Your task to perform on an android device: Open calendar and show me the second week of next month Image 0: 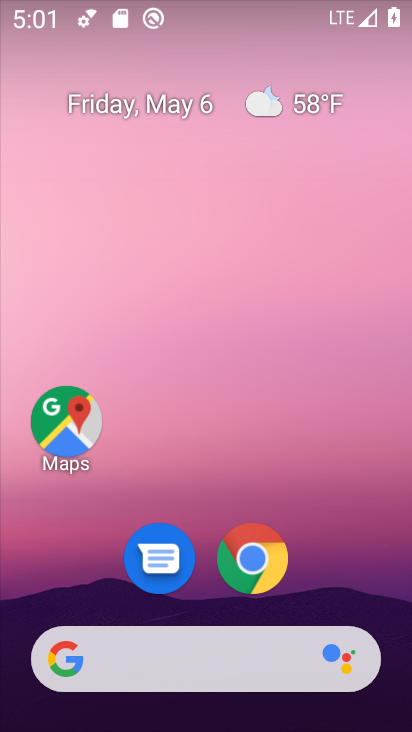
Step 0: drag from (329, 622) to (314, 35)
Your task to perform on an android device: Open calendar and show me the second week of next month Image 1: 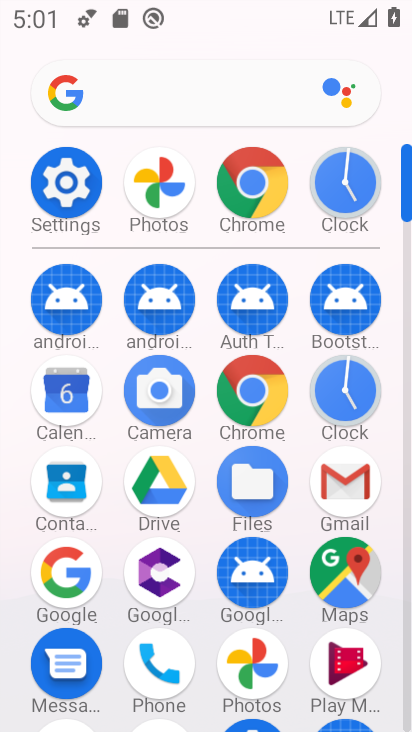
Step 1: click (65, 405)
Your task to perform on an android device: Open calendar and show me the second week of next month Image 2: 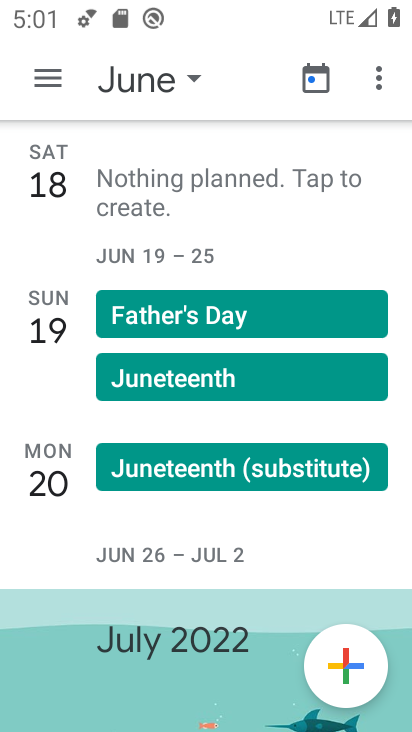
Step 2: click (185, 74)
Your task to perform on an android device: Open calendar and show me the second week of next month Image 3: 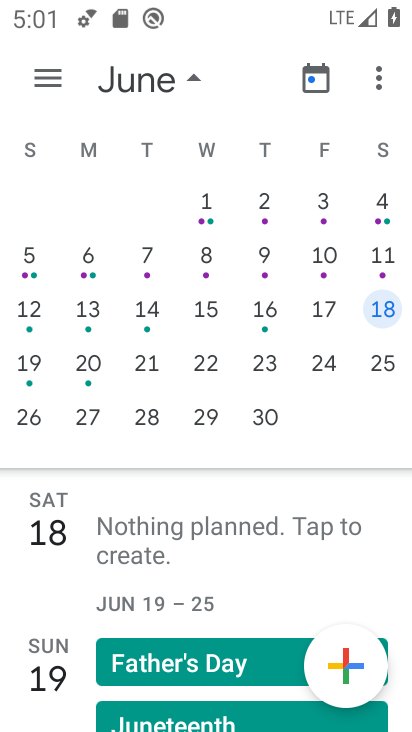
Step 3: click (260, 262)
Your task to perform on an android device: Open calendar and show me the second week of next month Image 4: 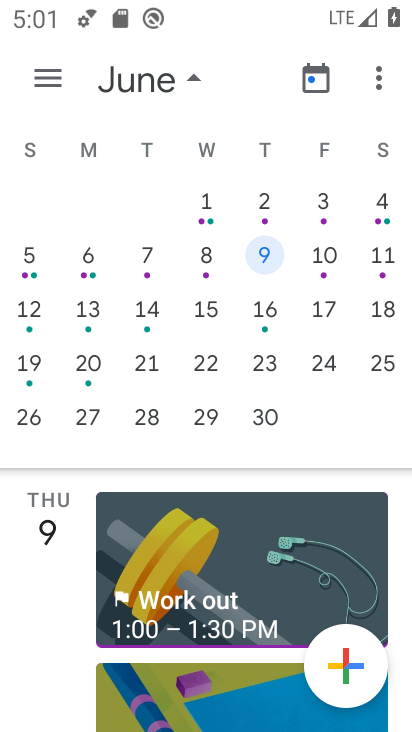
Step 4: task complete